Your task to perform on an android device: Set the phone to "Do not disturb". Image 0: 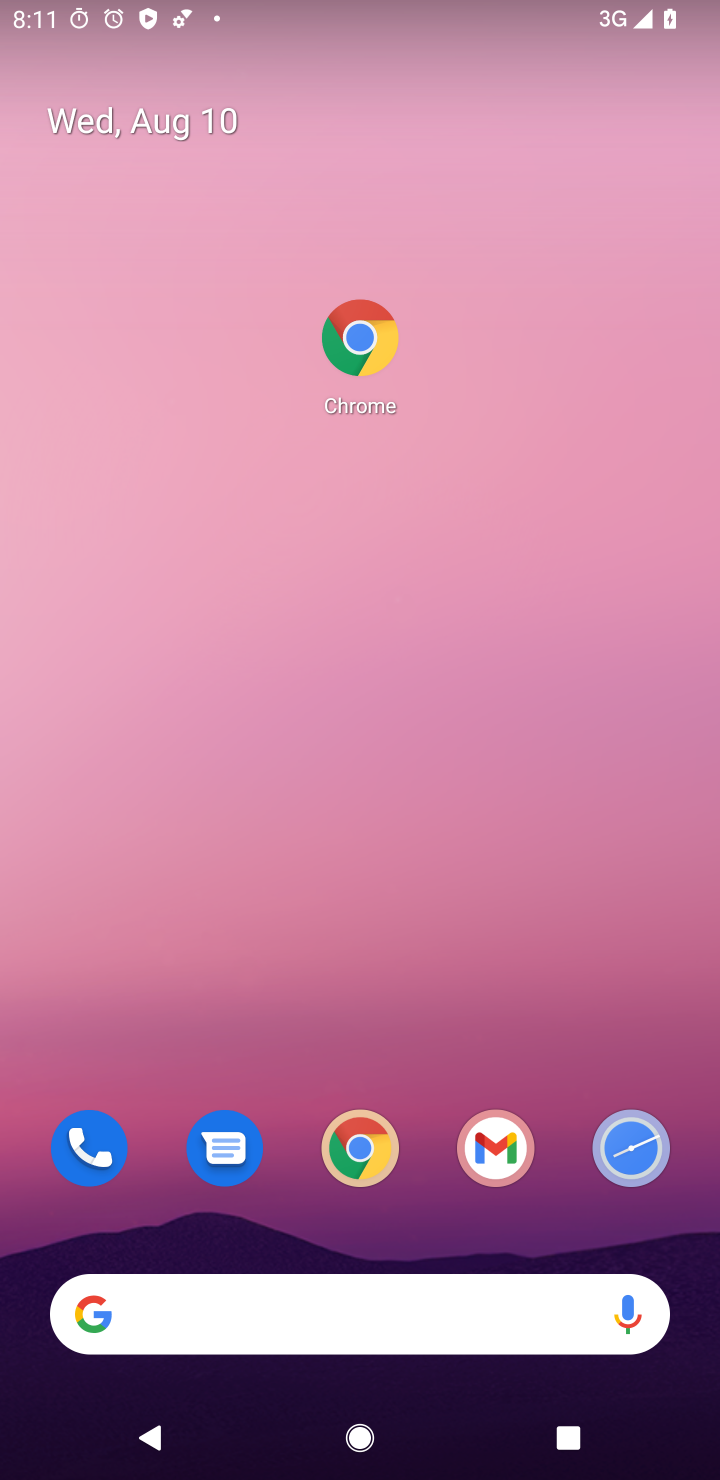
Step 0: drag from (367, 11) to (92, 1472)
Your task to perform on an android device: Set the phone to "Do not disturb". Image 1: 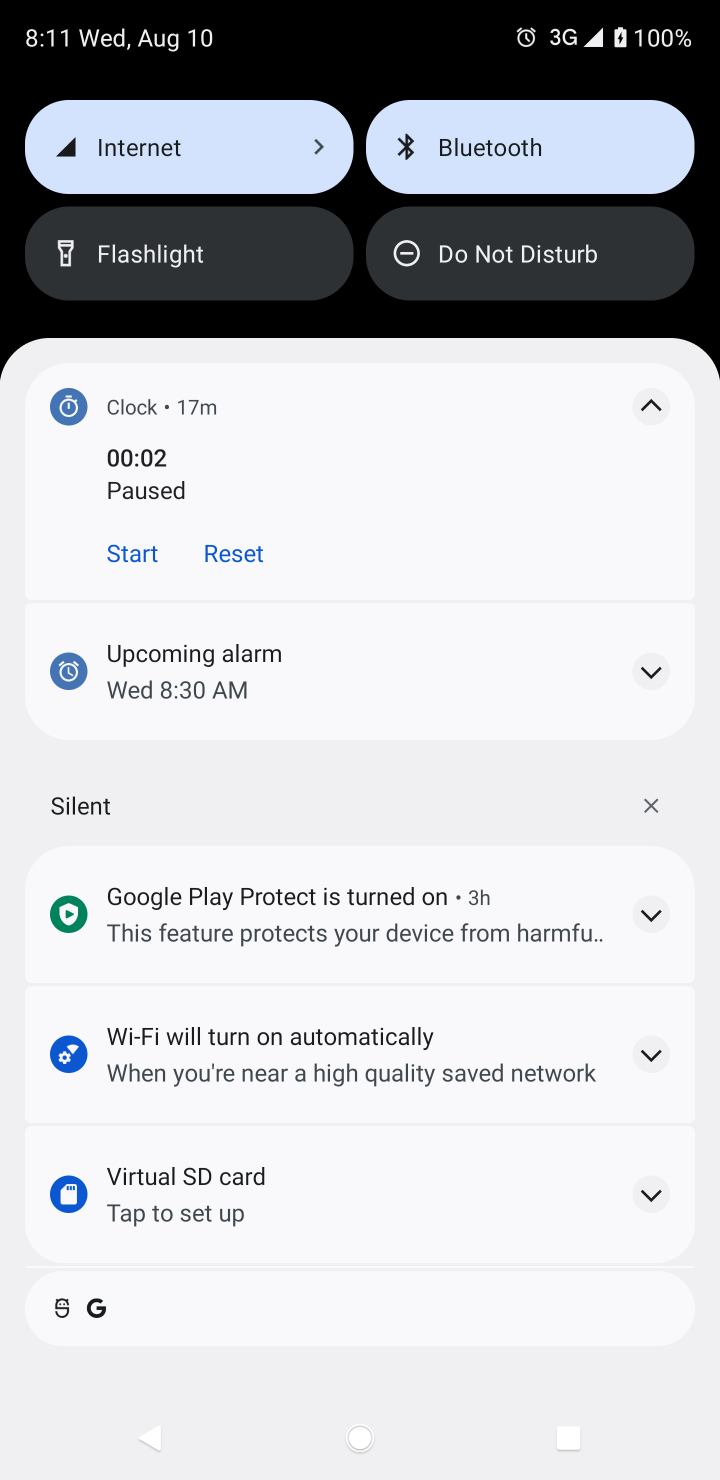
Step 1: click (507, 258)
Your task to perform on an android device: Set the phone to "Do not disturb". Image 2: 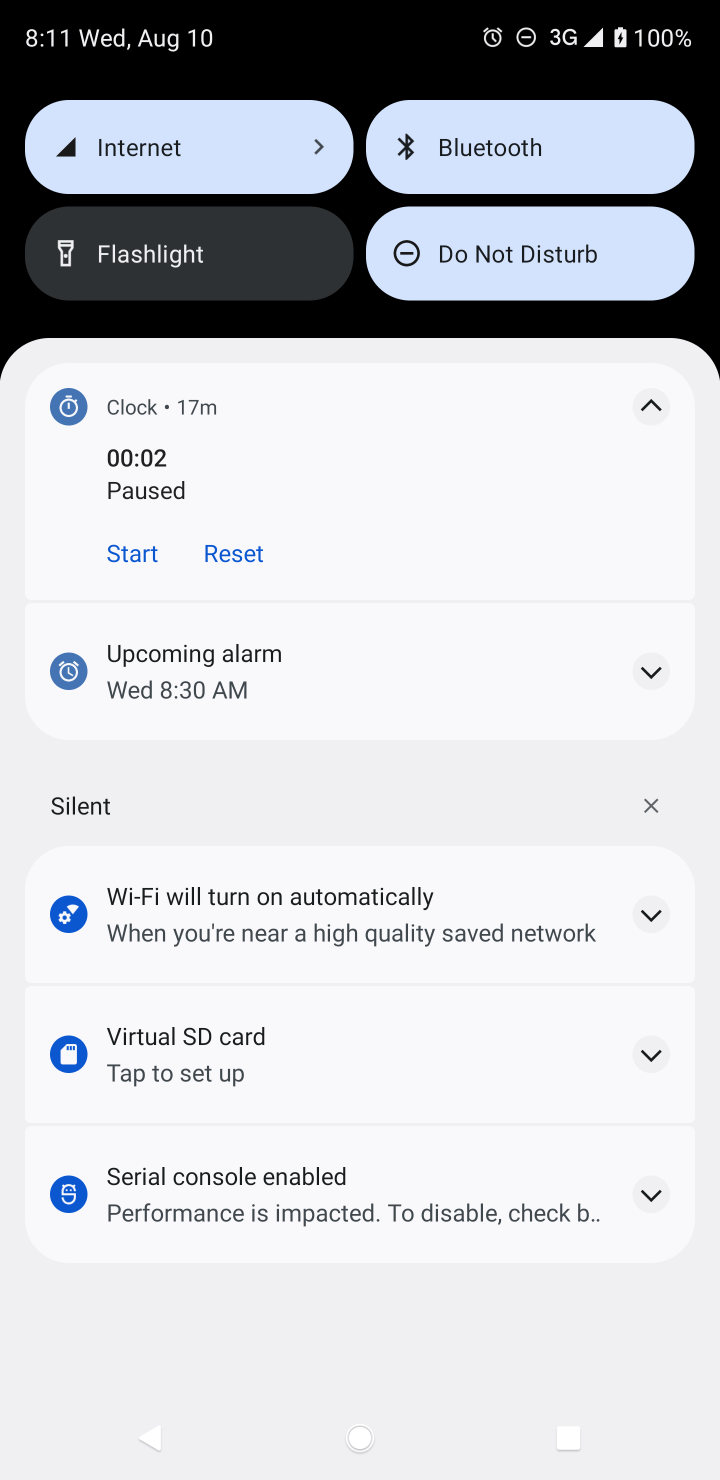
Step 2: click (211, 548)
Your task to perform on an android device: Set the phone to "Do not disturb". Image 3: 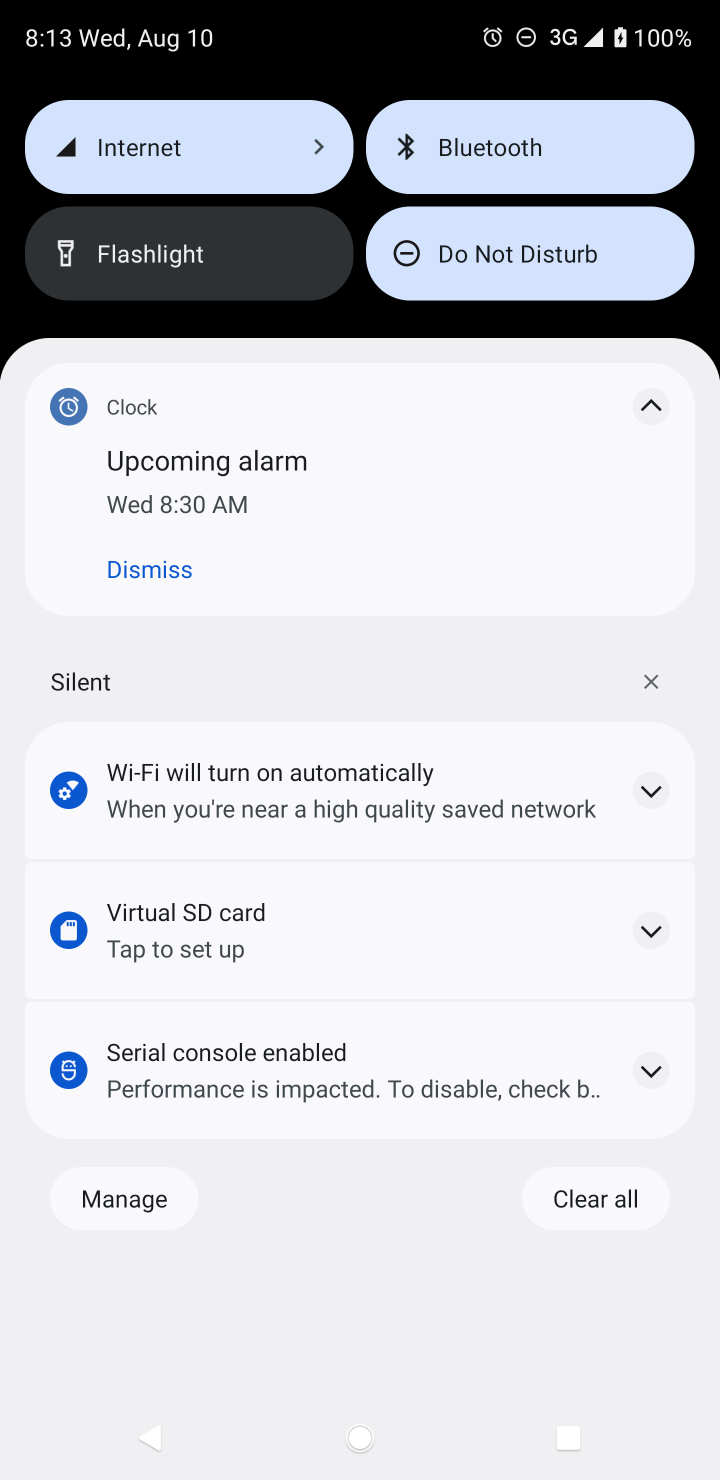
Step 3: task complete